Your task to perform on an android device: Go to eBay Image 0: 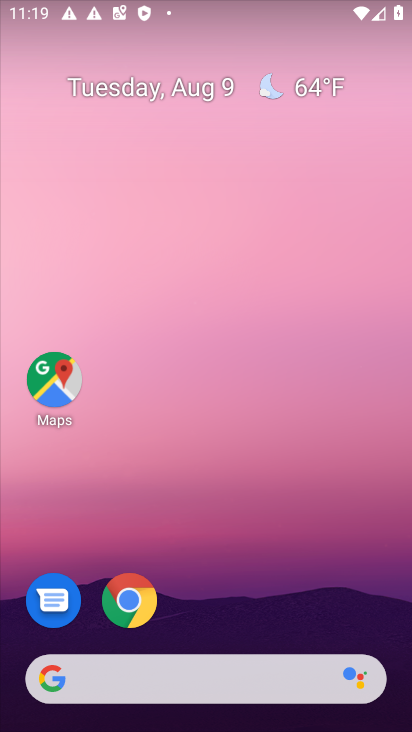
Step 0: click (132, 597)
Your task to perform on an android device: Go to eBay Image 1: 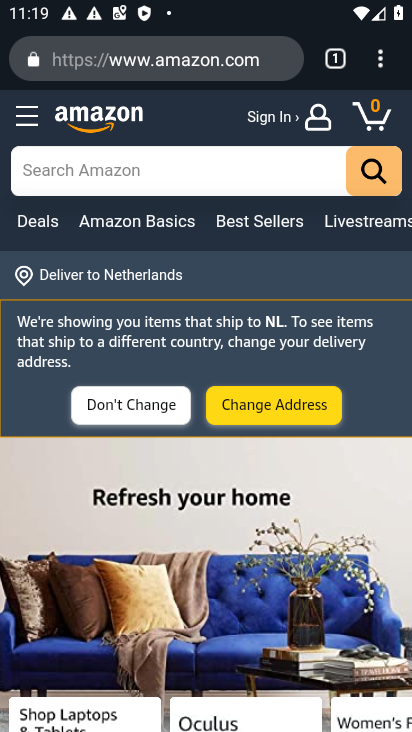
Step 1: click (110, 55)
Your task to perform on an android device: Go to eBay Image 2: 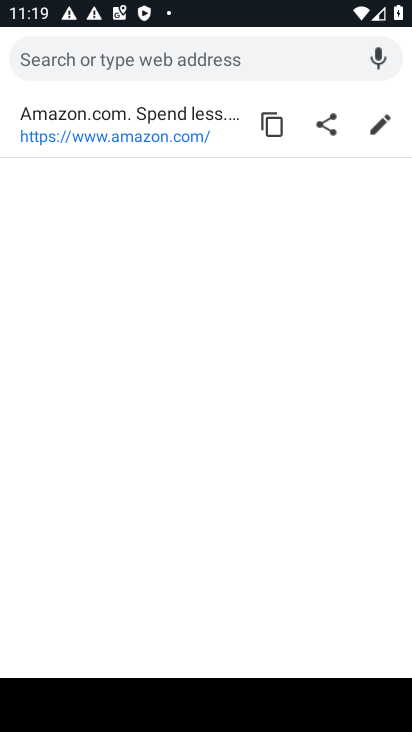
Step 2: type "eBay"
Your task to perform on an android device: Go to eBay Image 3: 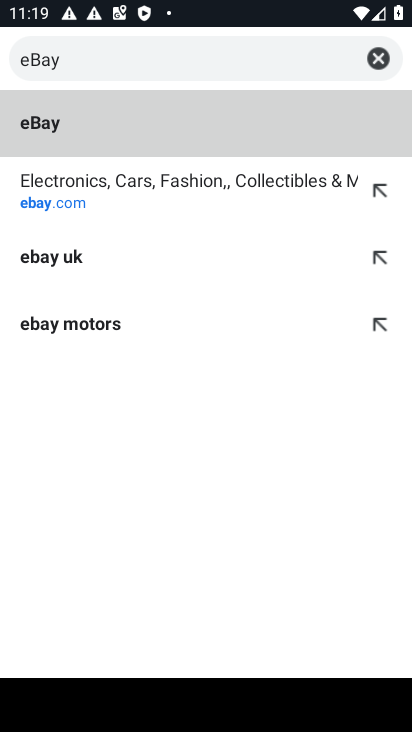
Step 3: click (95, 123)
Your task to perform on an android device: Go to eBay Image 4: 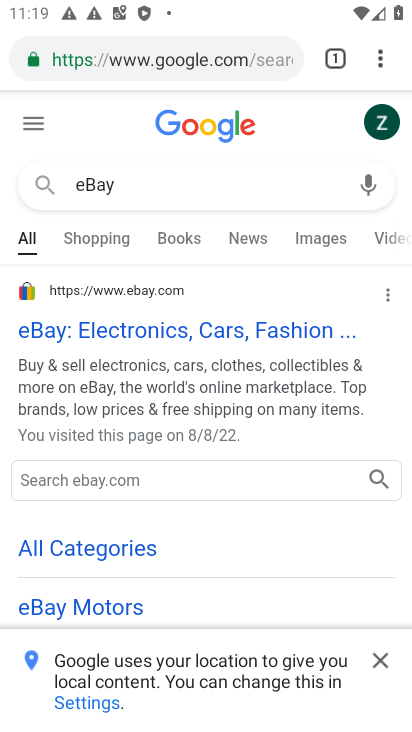
Step 4: task complete